Your task to perform on an android device: Open accessibility settings Image 0: 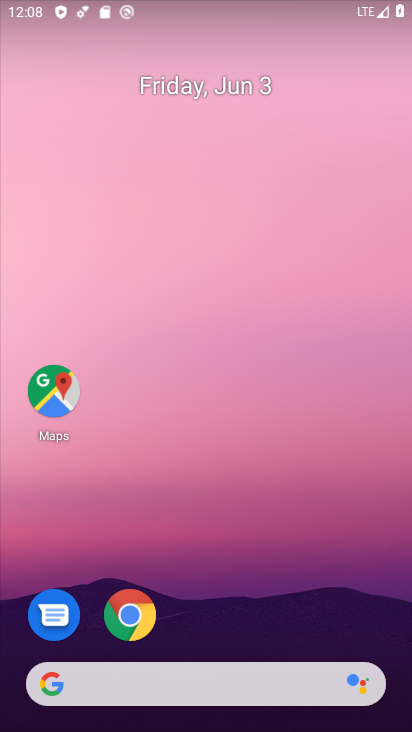
Step 0: drag from (242, 283) to (171, 4)
Your task to perform on an android device: Open accessibility settings Image 1: 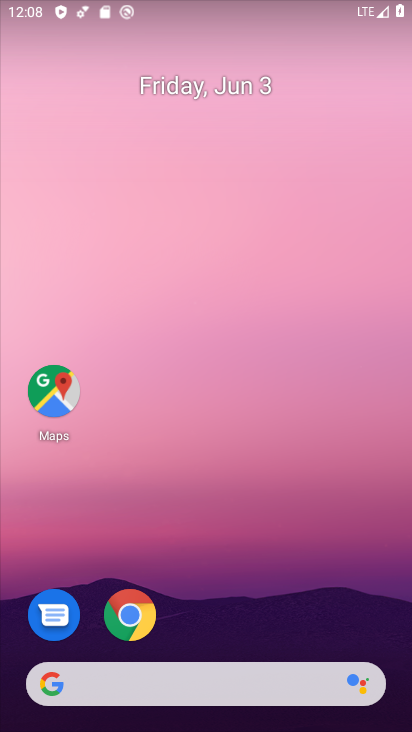
Step 1: drag from (271, 585) to (84, 8)
Your task to perform on an android device: Open accessibility settings Image 2: 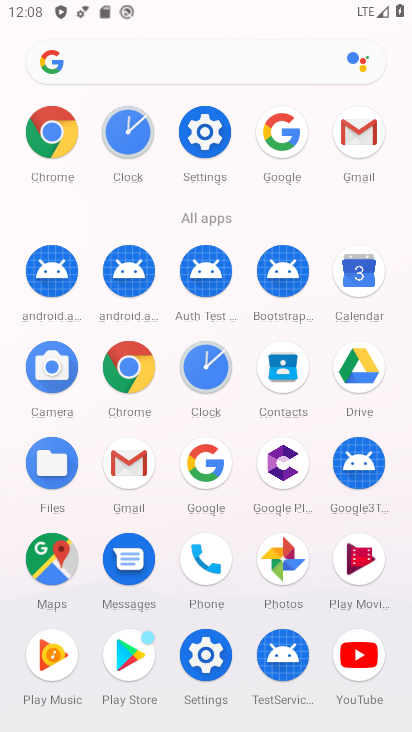
Step 2: click (196, 151)
Your task to perform on an android device: Open accessibility settings Image 3: 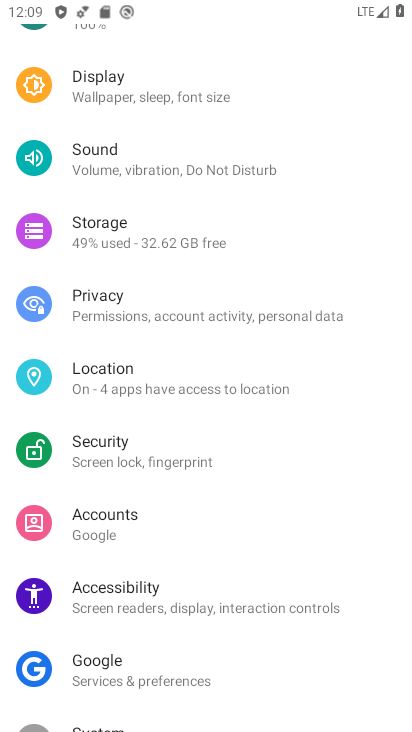
Step 3: click (208, 588)
Your task to perform on an android device: Open accessibility settings Image 4: 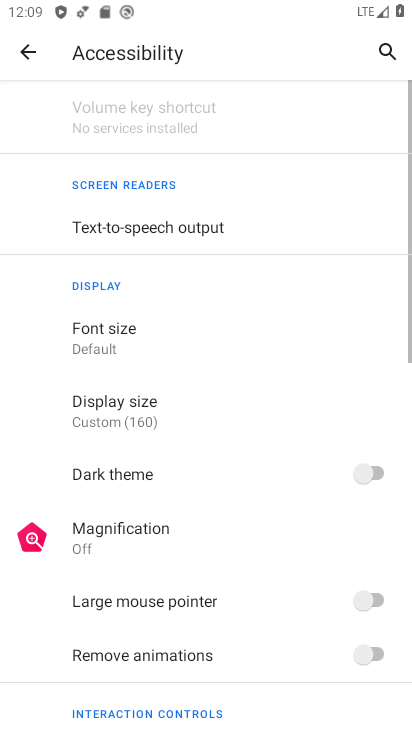
Step 4: task complete